Your task to perform on an android device: Open Chrome and go to settings Image 0: 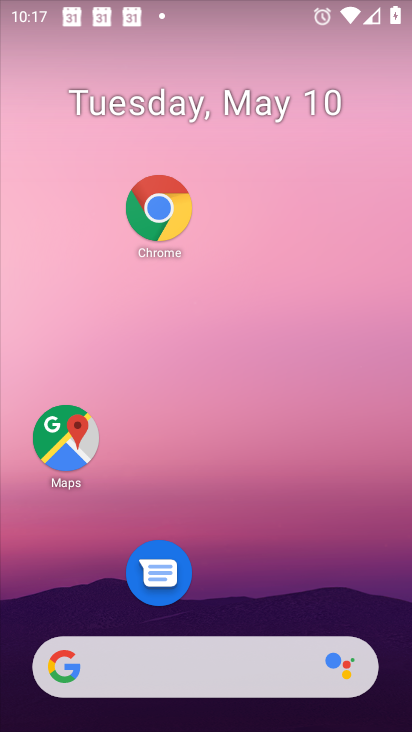
Step 0: drag from (277, 691) to (336, 385)
Your task to perform on an android device: Open Chrome and go to settings Image 1: 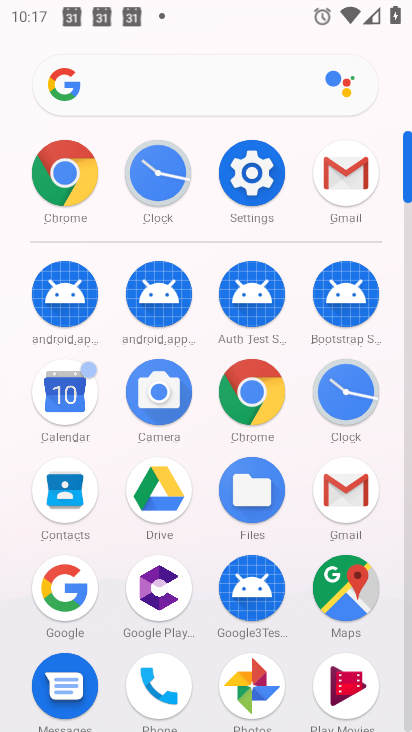
Step 1: click (83, 188)
Your task to perform on an android device: Open Chrome and go to settings Image 2: 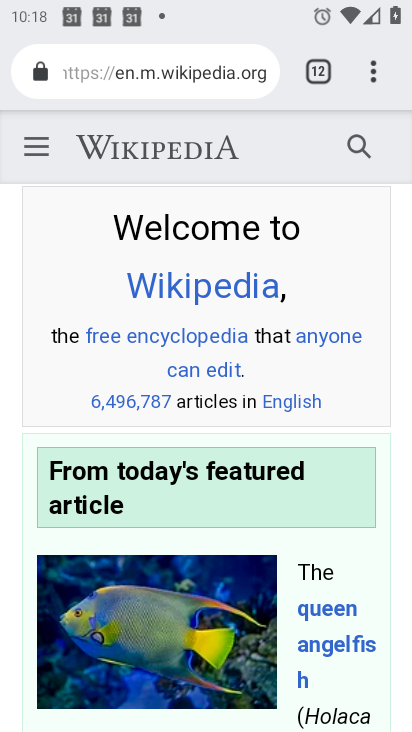
Step 2: click (359, 84)
Your task to perform on an android device: Open Chrome and go to settings Image 3: 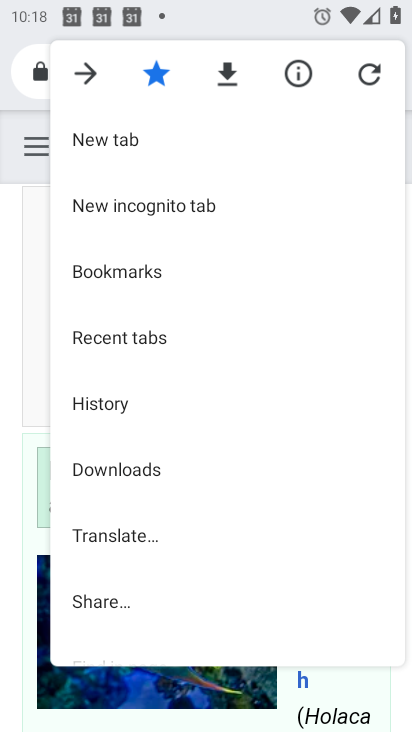
Step 3: drag from (209, 563) to (253, 293)
Your task to perform on an android device: Open Chrome and go to settings Image 4: 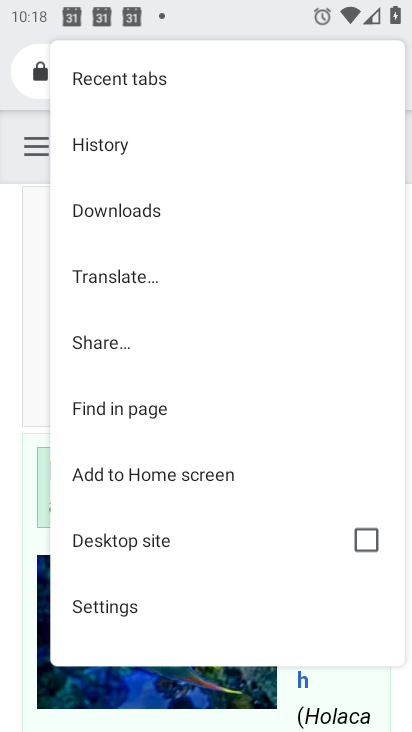
Step 4: click (116, 601)
Your task to perform on an android device: Open Chrome and go to settings Image 5: 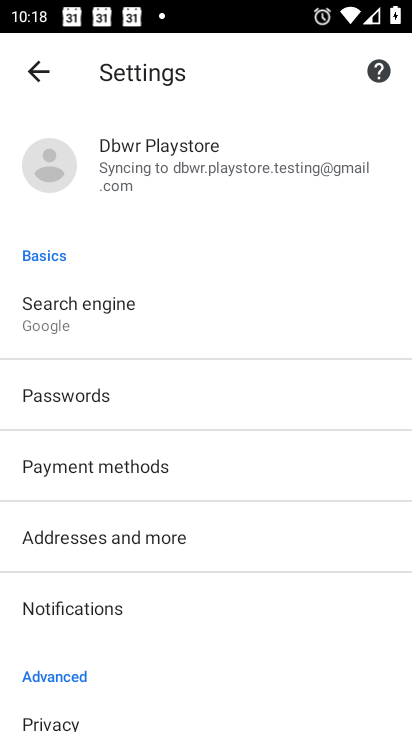
Step 5: task complete